Your task to perform on an android device: check android version Image 0: 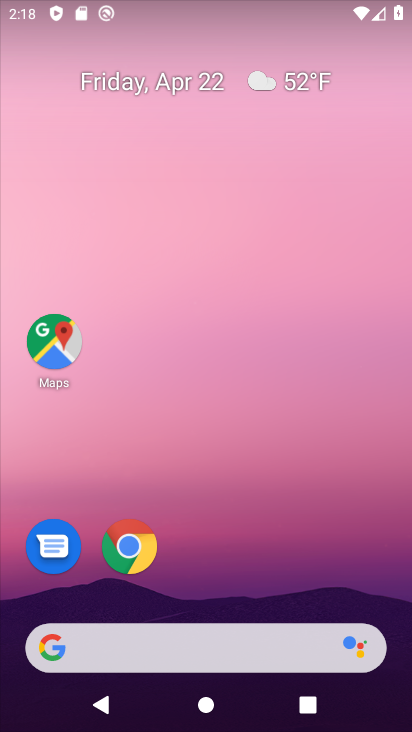
Step 0: press home button
Your task to perform on an android device: check android version Image 1: 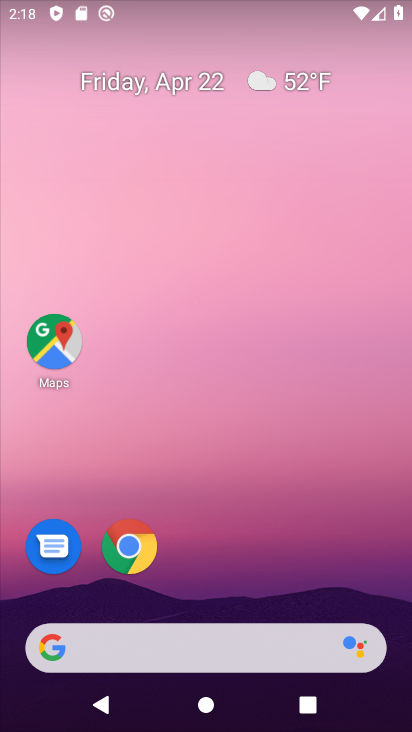
Step 1: drag from (247, 685) to (330, 103)
Your task to perform on an android device: check android version Image 2: 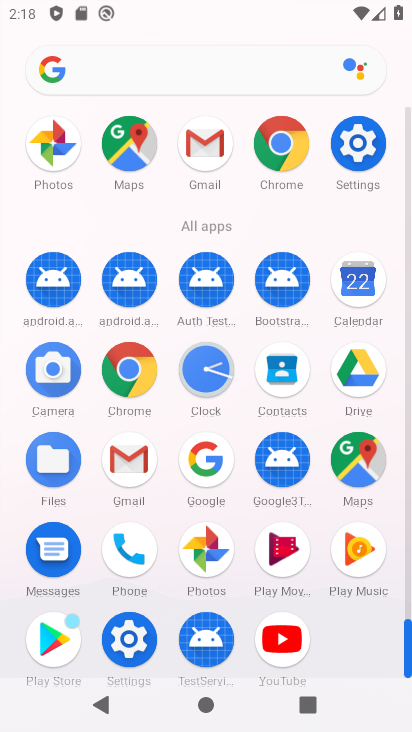
Step 2: click (358, 163)
Your task to perform on an android device: check android version Image 3: 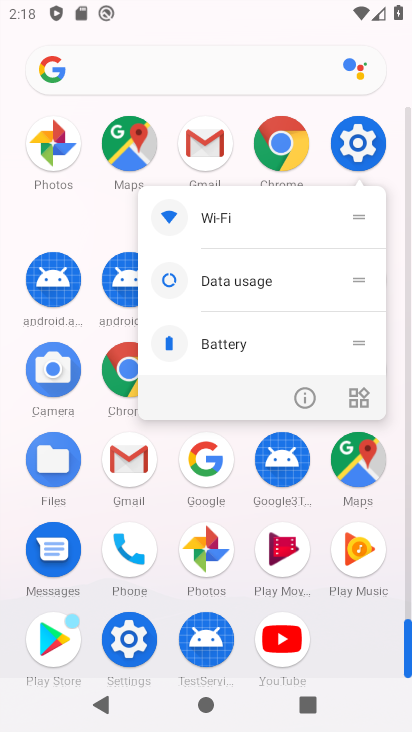
Step 3: click (358, 163)
Your task to perform on an android device: check android version Image 4: 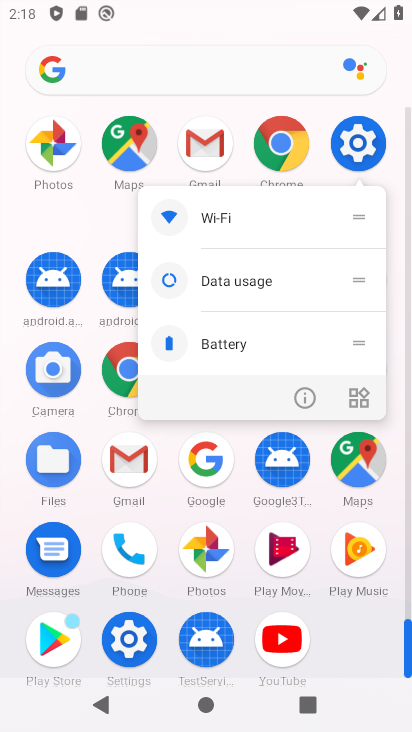
Step 4: click (362, 152)
Your task to perform on an android device: check android version Image 5: 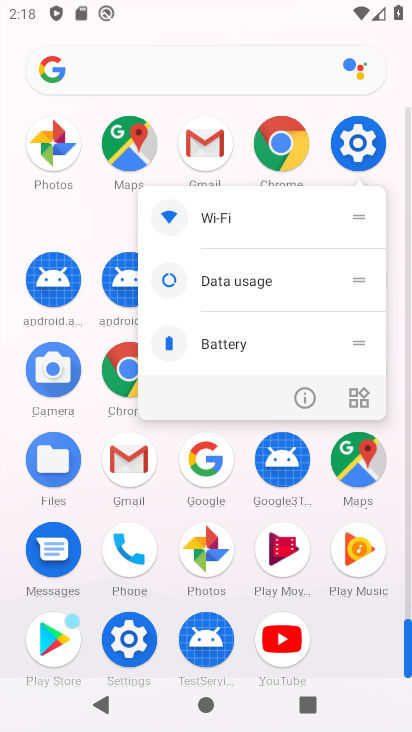
Step 5: click (362, 152)
Your task to perform on an android device: check android version Image 6: 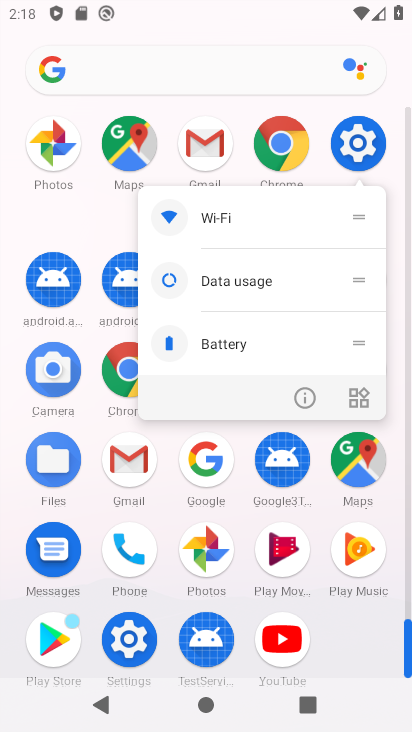
Step 6: click (362, 138)
Your task to perform on an android device: check android version Image 7: 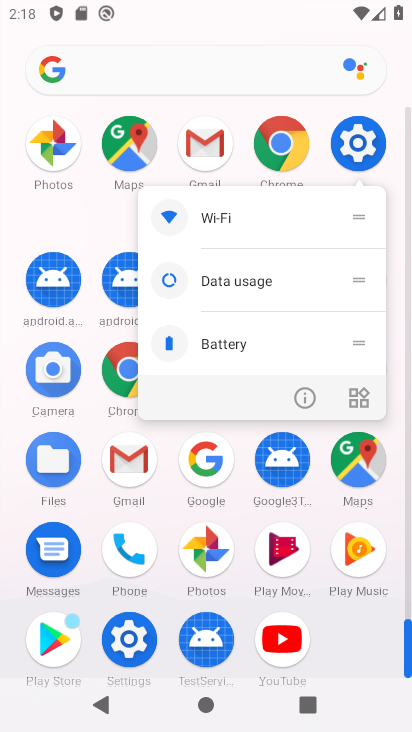
Step 7: click (362, 138)
Your task to perform on an android device: check android version Image 8: 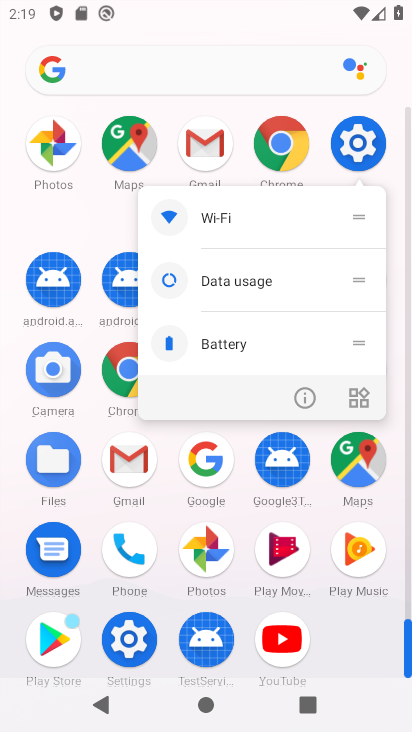
Step 8: click (362, 138)
Your task to perform on an android device: check android version Image 9: 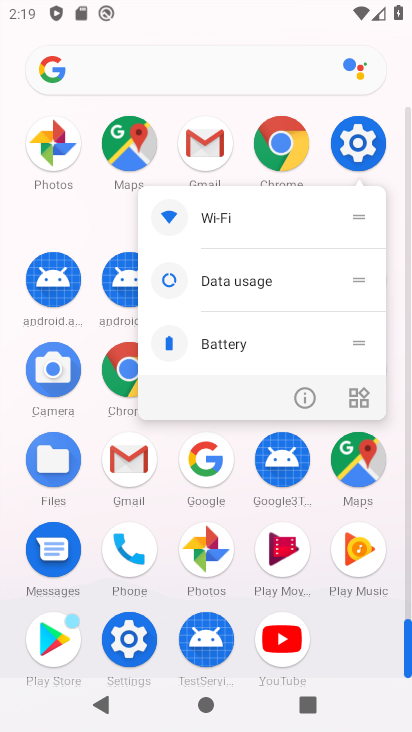
Step 9: click (363, 138)
Your task to perform on an android device: check android version Image 10: 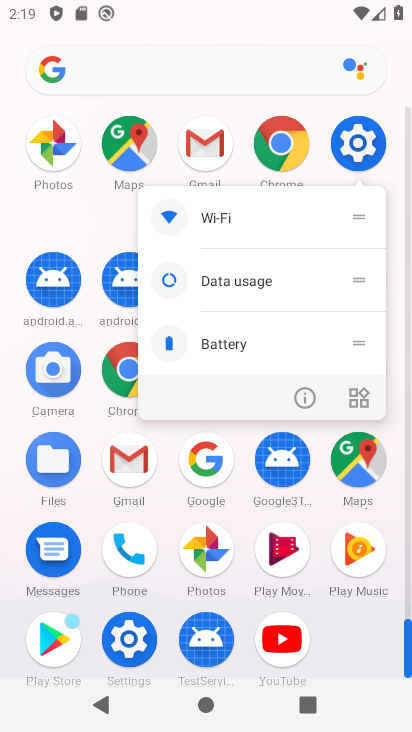
Step 10: click (359, 140)
Your task to perform on an android device: check android version Image 11: 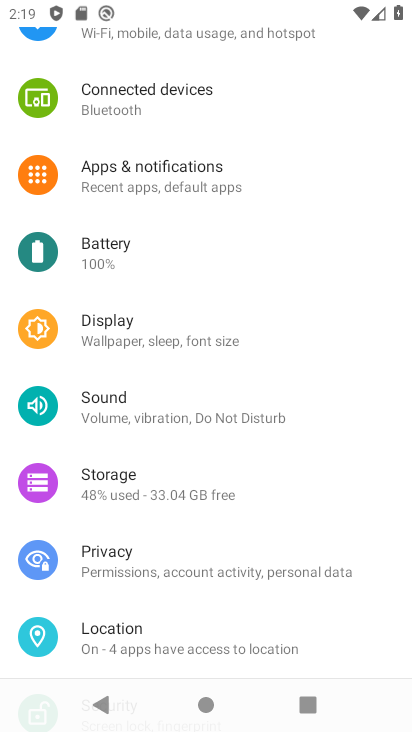
Step 11: drag from (229, 634) to (276, 152)
Your task to perform on an android device: check android version Image 12: 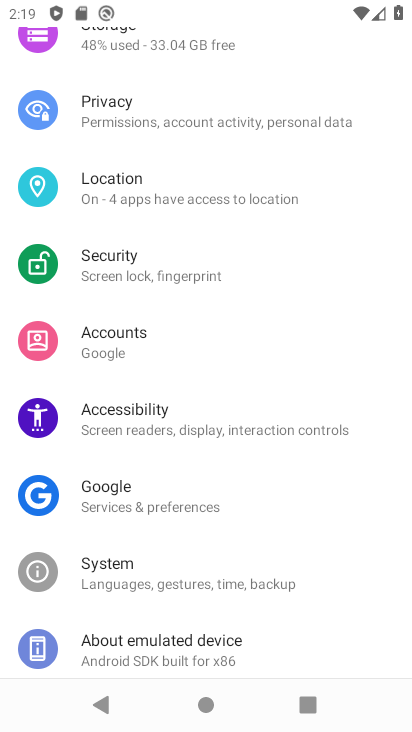
Step 12: drag from (235, 589) to (292, 264)
Your task to perform on an android device: check android version Image 13: 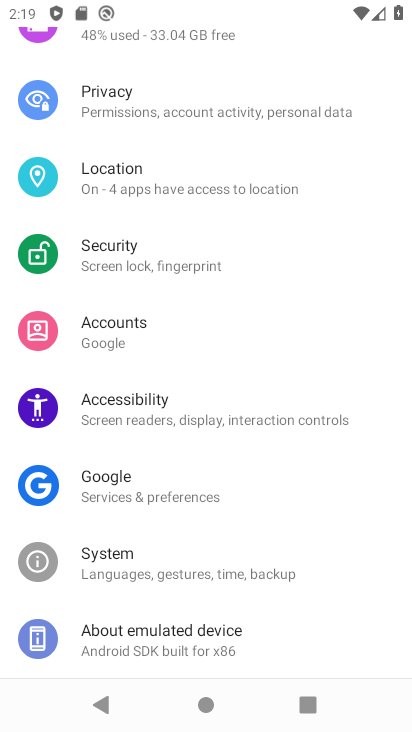
Step 13: click (192, 641)
Your task to perform on an android device: check android version Image 14: 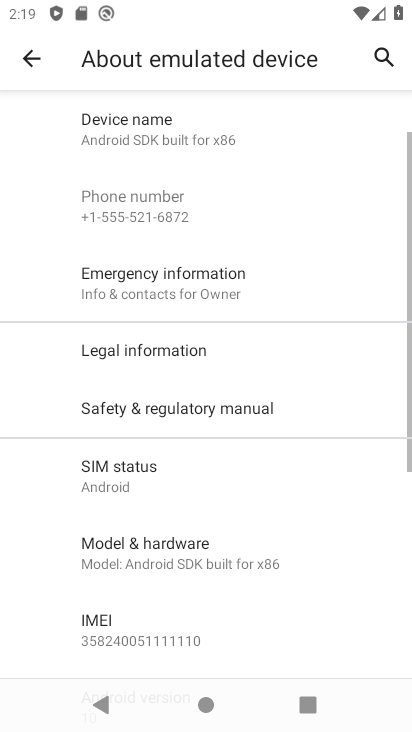
Step 14: drag from (196, 628) to (264, 269)
Your task to perform on an android device: check android version Image 15: 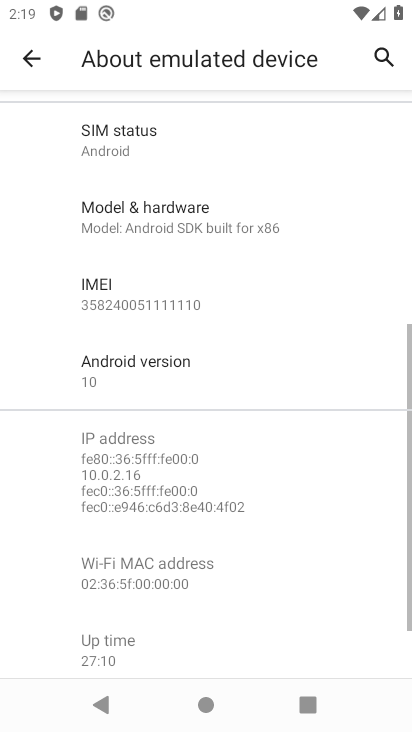
Step 15: click (148, 353)
Your task to perform on an android device: check android version Image 16: 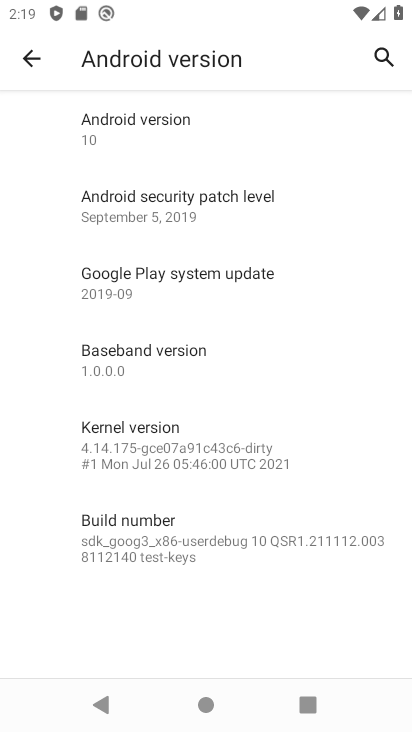
Step 16: drag from (198, 463) to (316, 191)
Your task to perform on an android device: check android version Image 17: 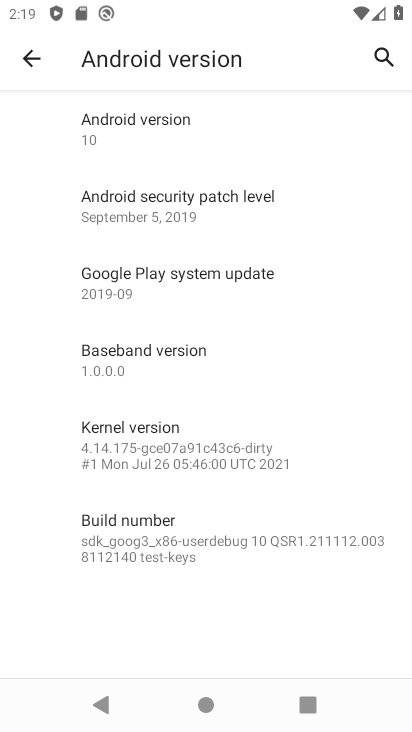
Step 17: click (197, 137)
Your task to perform on an android device: check android version Image 18: 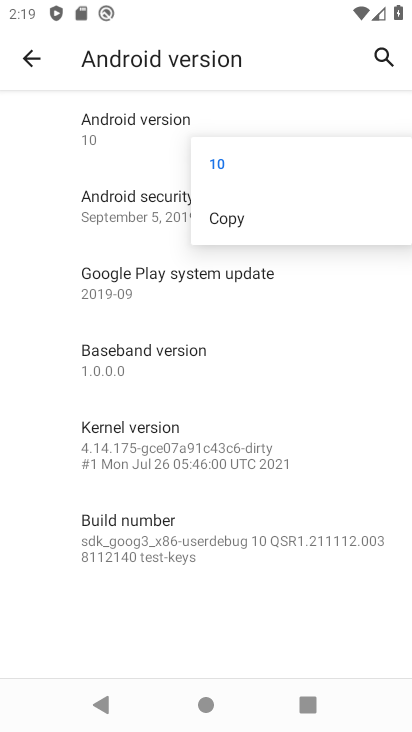
Step 18: click (109, 147)
Your task to perform on an android device: check android version Image 19: 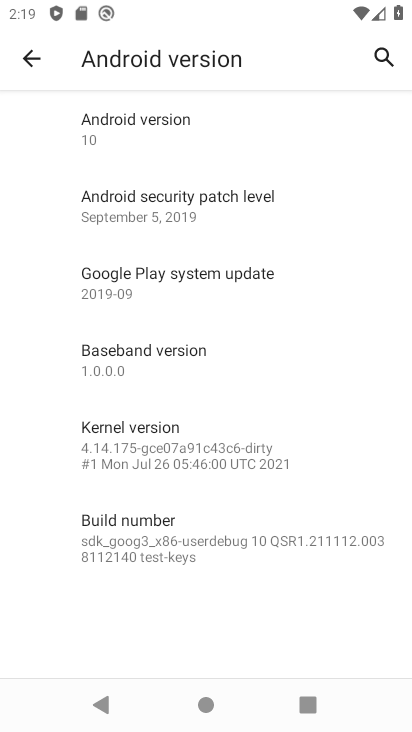
Step 19: task complete